Your task to perform on an android device: Open Chrome and go to the settings page Image 0: 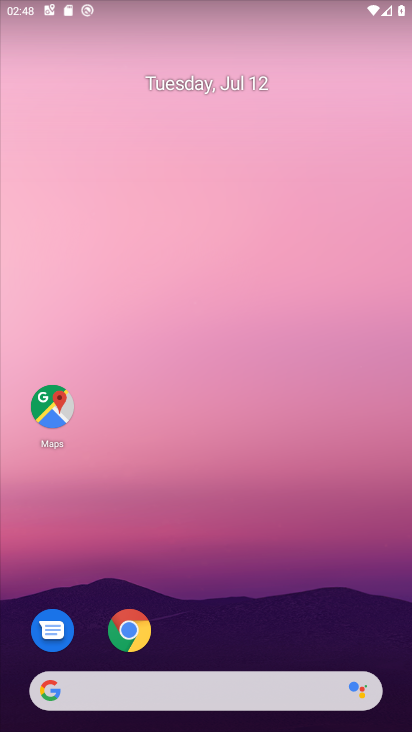
Step 0: click (125, 630)
Your task to perform on an android device: Open Chrome and go to the settings page Image 1: 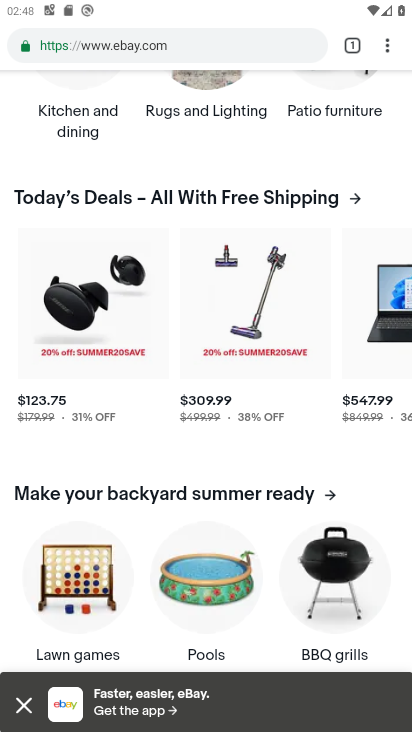
Step 1: click (384, 47)
Your task to perform on an android device: Open Chrome and go to the settings page Image 2: 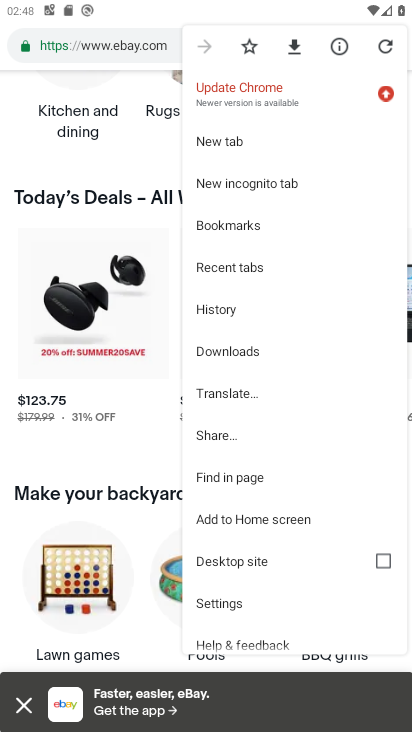
Step 2: click (228, 607)
Your task to perform on an android device: Open Chrome and go to the settings page Image 3: 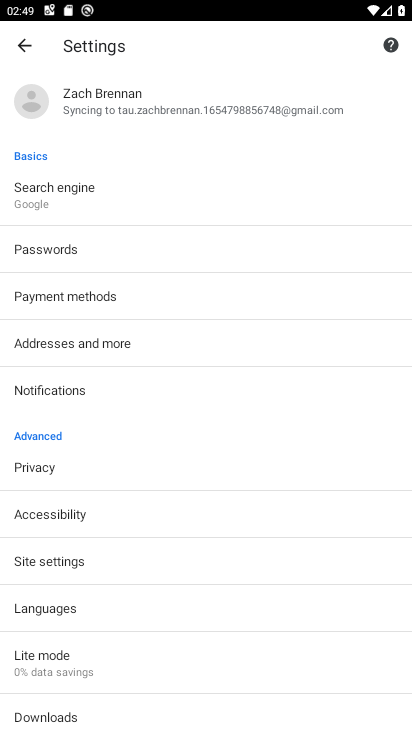
Step 3: task complete